Your task to perform on an android device: set default search engine in the chrome app Image 0: 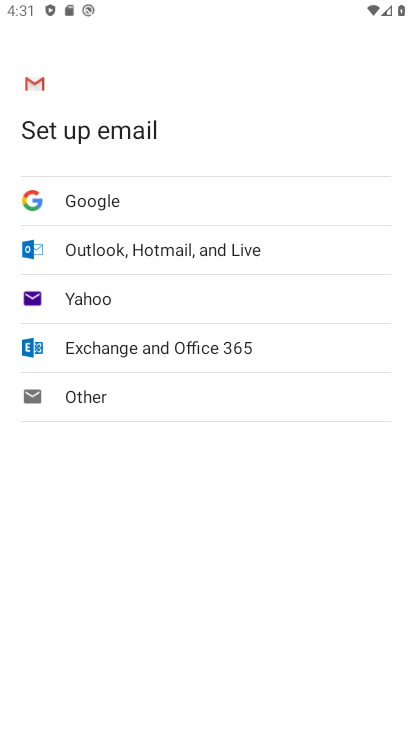
Step 0: press home button
Your task to perform on an android device: set default search engine in the chrome app Image 1: 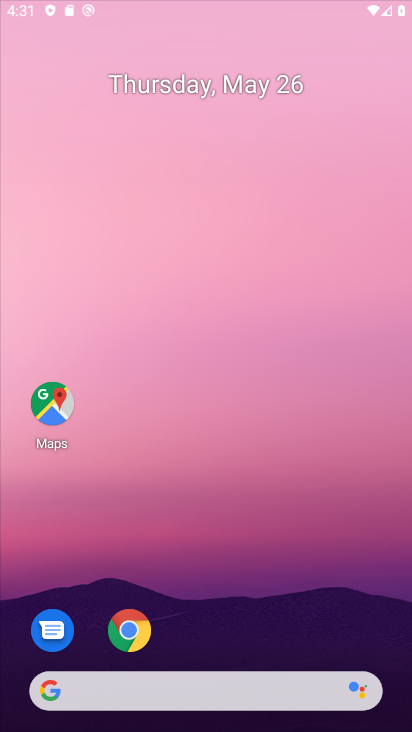
Step 1: press home button
Your task to perform on an android device: set default search engine in the chrome app Image 2: 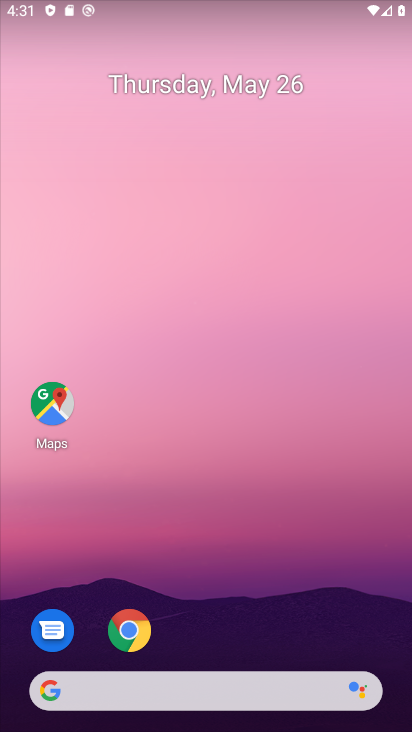
Step 2: click (167, 659)
Your task to perform on an android device: set default search engine in the chrome app Image 3: 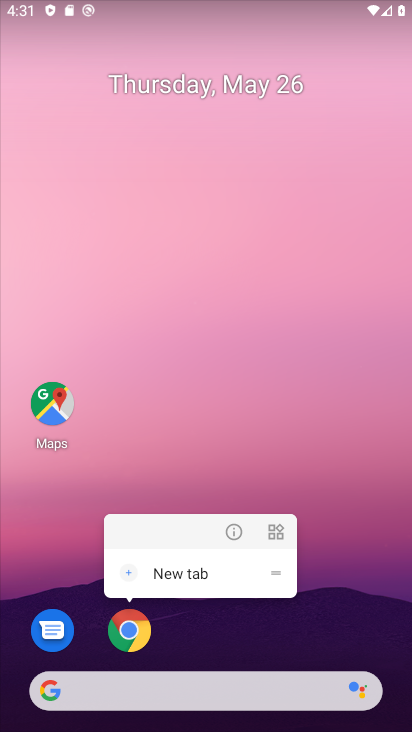
Step 3: click (135, 636)
Your task to perform on an android device: set default search engine in the chrome app Image 4: 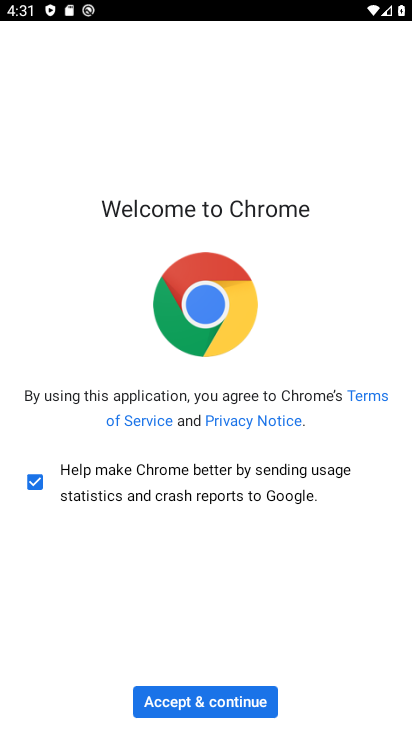
Step 4: click (180, 705)
Your task to perform on an android device: set default search engine in the chrome app Image 5: 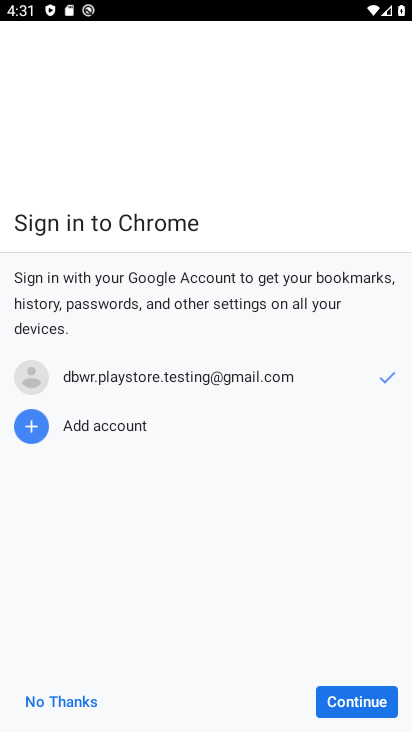
Step 5: click (367, 708)
Your task to perform on an android device: set default search engine in the chrome app Image 6: 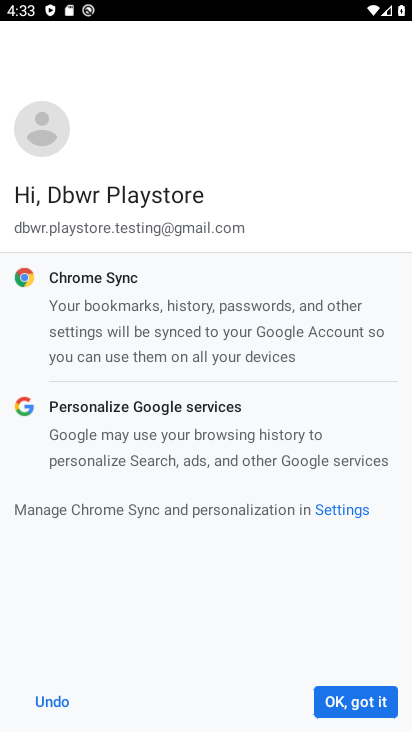
Step 6: click (348, 703)
Your task to perform on an android device: set default search engine in the chrome app Image 7: 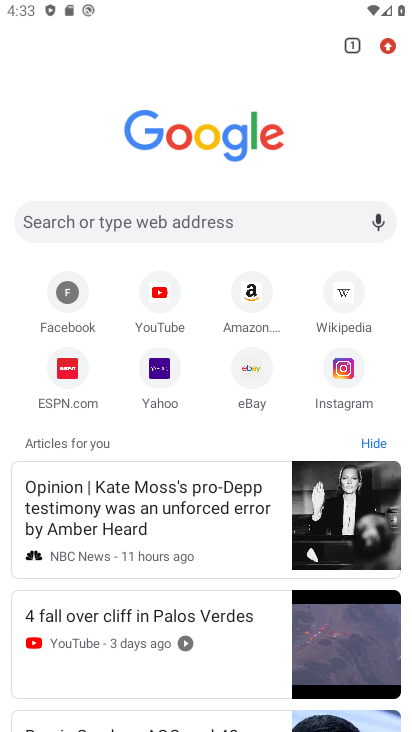
Step 7: click (388, 44)
Your task to perform on an android device: set default search engine in the chrome app Image 8: 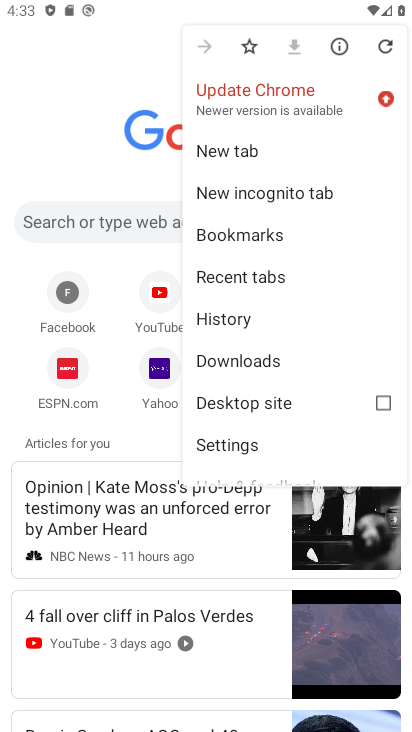
Step 8: click (231, 442)
Your task to perform on an android device: set default search engine in the chrome app Image 9: 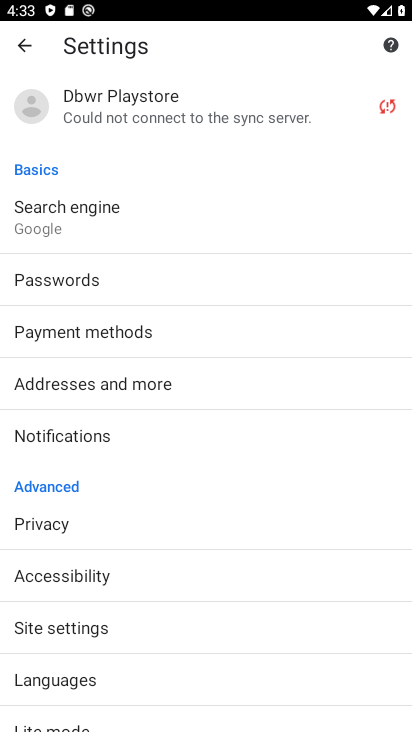
Step 9: click (54, 221)
Your task to perform on an android device: set default search engine in the chrome app Image 10: 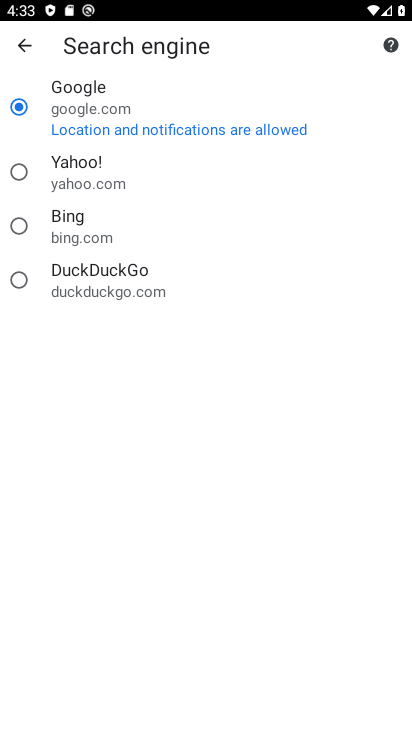
Step 10: task complete